Your task to perform on an android device: read, delete, or share a saved page in the chrome app Image 0: 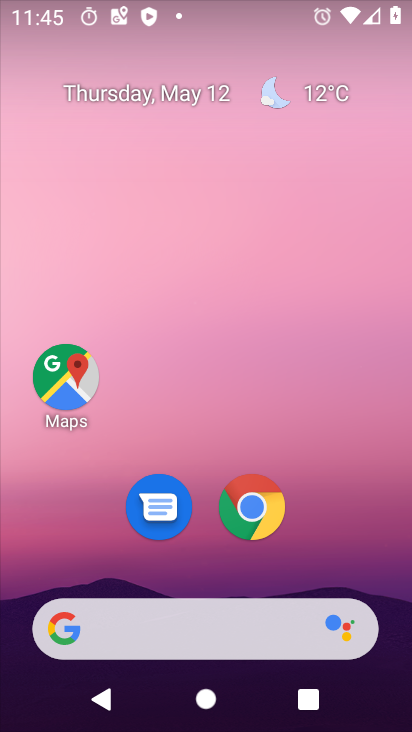
Step 0: drag from (211, 566) to (306, 24)
Your task to perform on an android device: read, delete, or share a saved page in the chrome app Image 1: 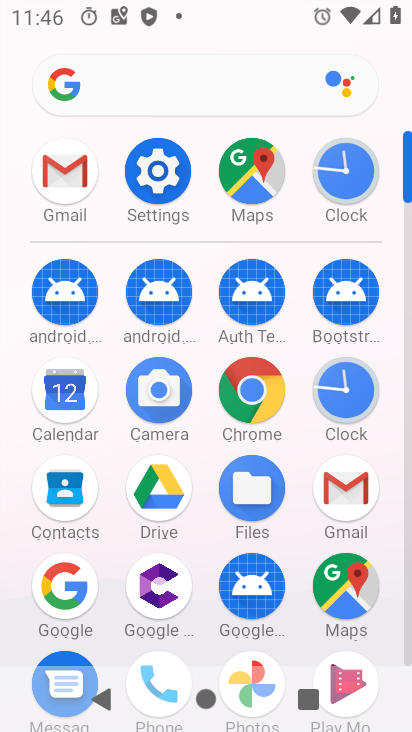
Step 1: click (270, 408)
Your task to perform on an android device: read, delete, or share a saved page in the chrome app Image 2: 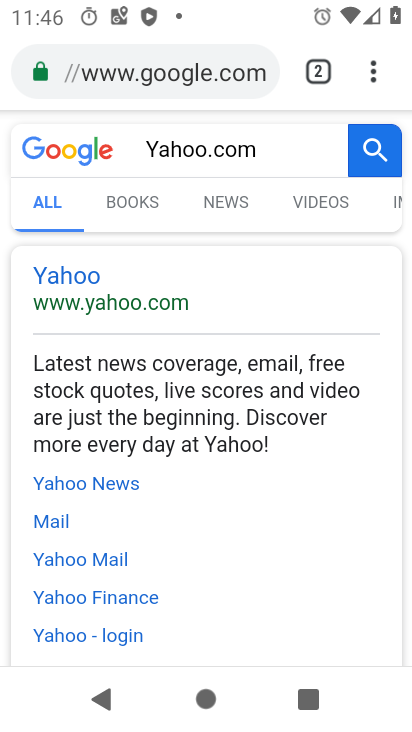
Step 2: click (370, 64)
Your task to perform on an android device: read, delete, or share a saved page in the chrome app Image 3: 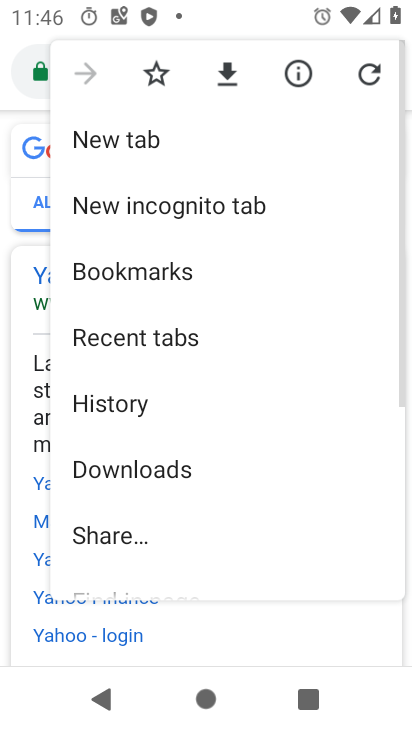
Step 3: click (179, 477)
Your task to perform on an android device: read, delete, or share a saved page in the chrome app Image 4: 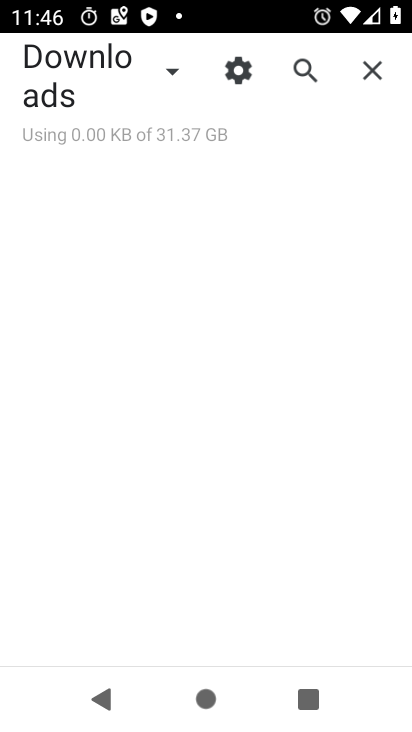
Step 4: task complete